Your task to perform on an android device: Search for bose quietcomfort 35 on costco, select the first entry, add it to the cart, then select checkout. Image 0: 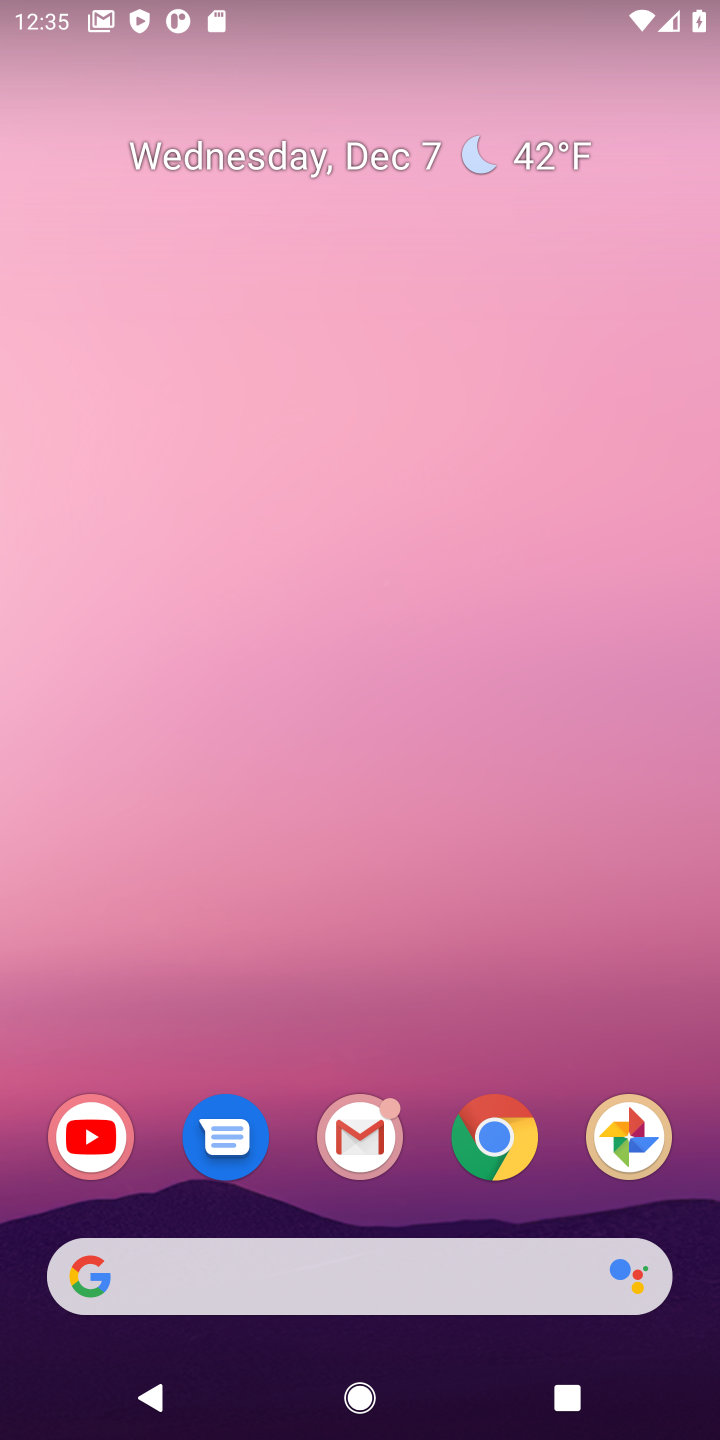
Step 0: drag from (367, 1282) to (427, 590)
Your task to perform on an android device: Search for bose quietcomfort 35 on costco, select the first entry, add it to the cart, then select checkout. Image 1: 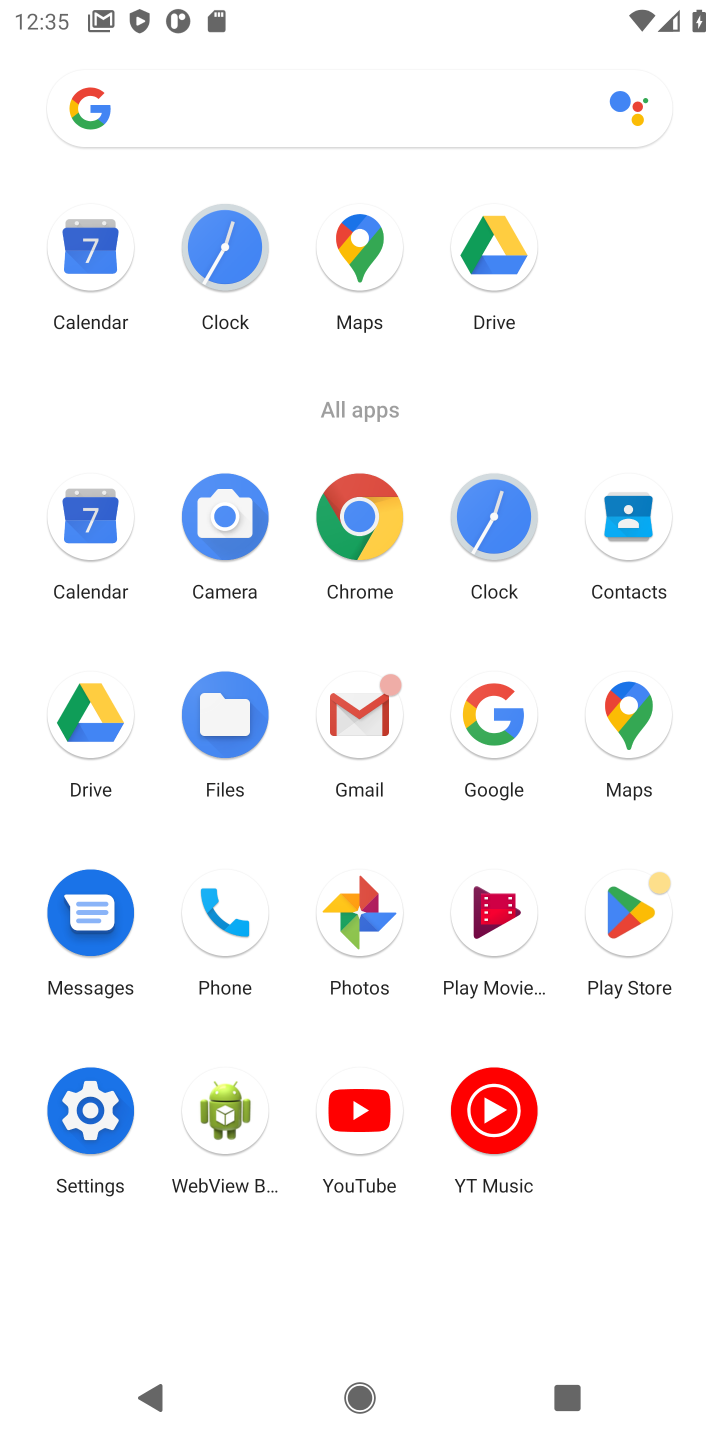
Step 1: click (476, 709)
Your task to perform on an android device: Search for bose quietcomfort 35 on costco, select the first entry, add it to the cart, then select checkout. Image 2: 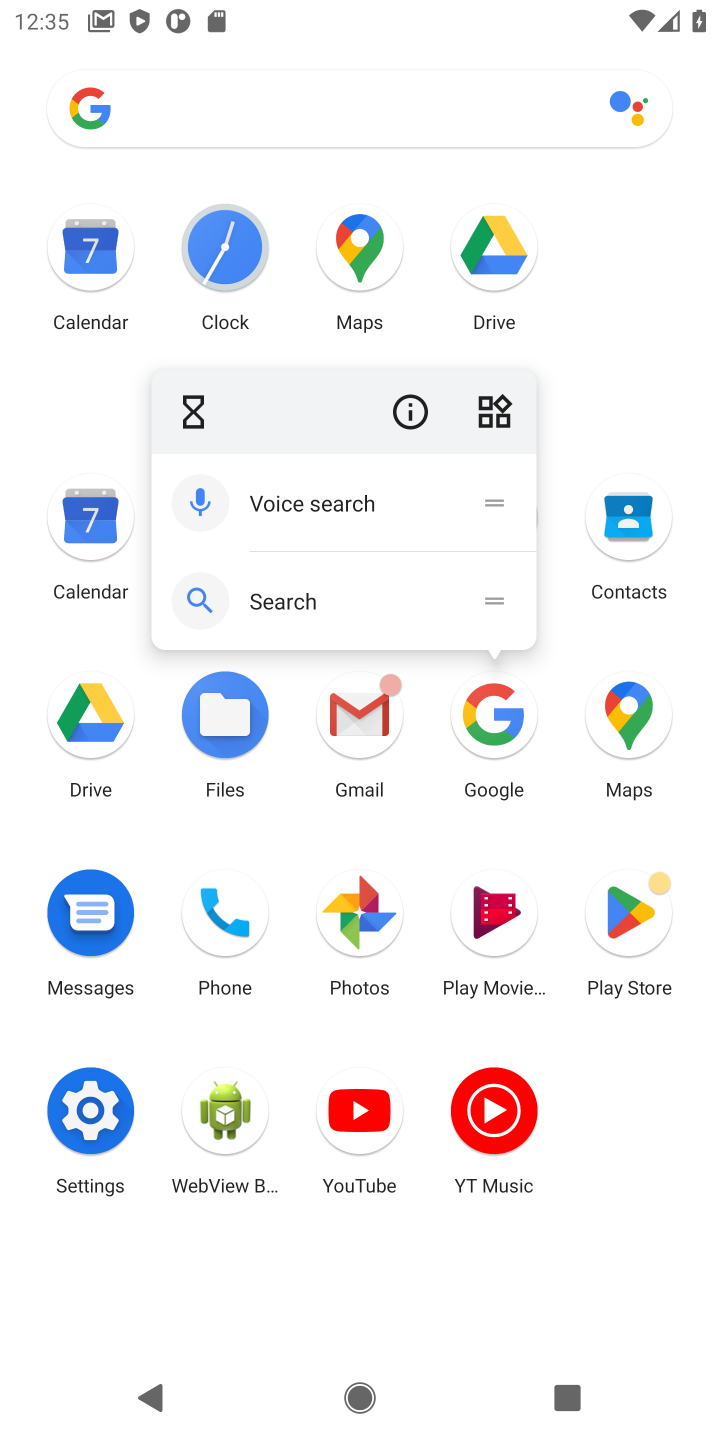
Step 2: click (503, 738)
Your task to perform on an android device: Search for bose quietcomfort 35 on costco, select the first entry, add it to the cart, then select checkout. Image 3: 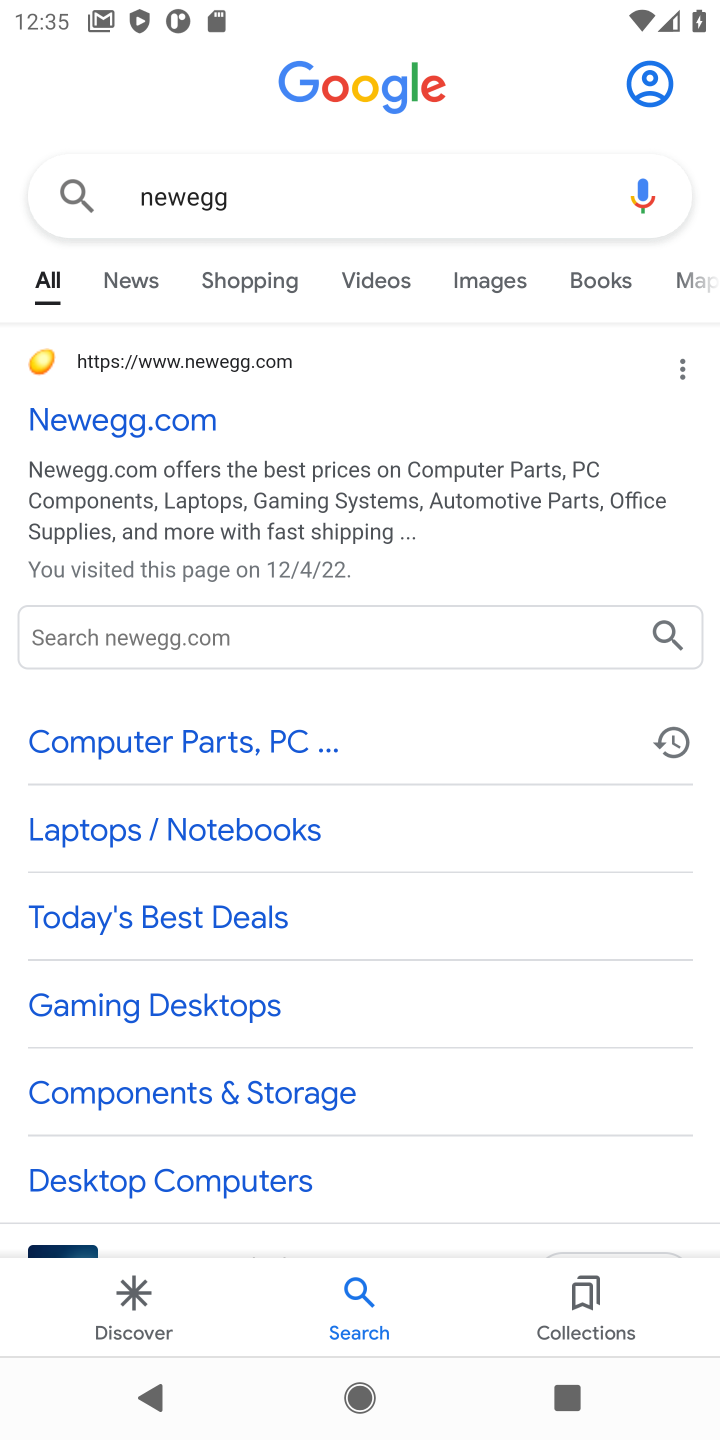
Step 3: click (189, 189)
Your task to perform on an android device: Search for bose quietcomfort 35 on costco, select the first entry, add it to the cart, then select checkout. Image 4: 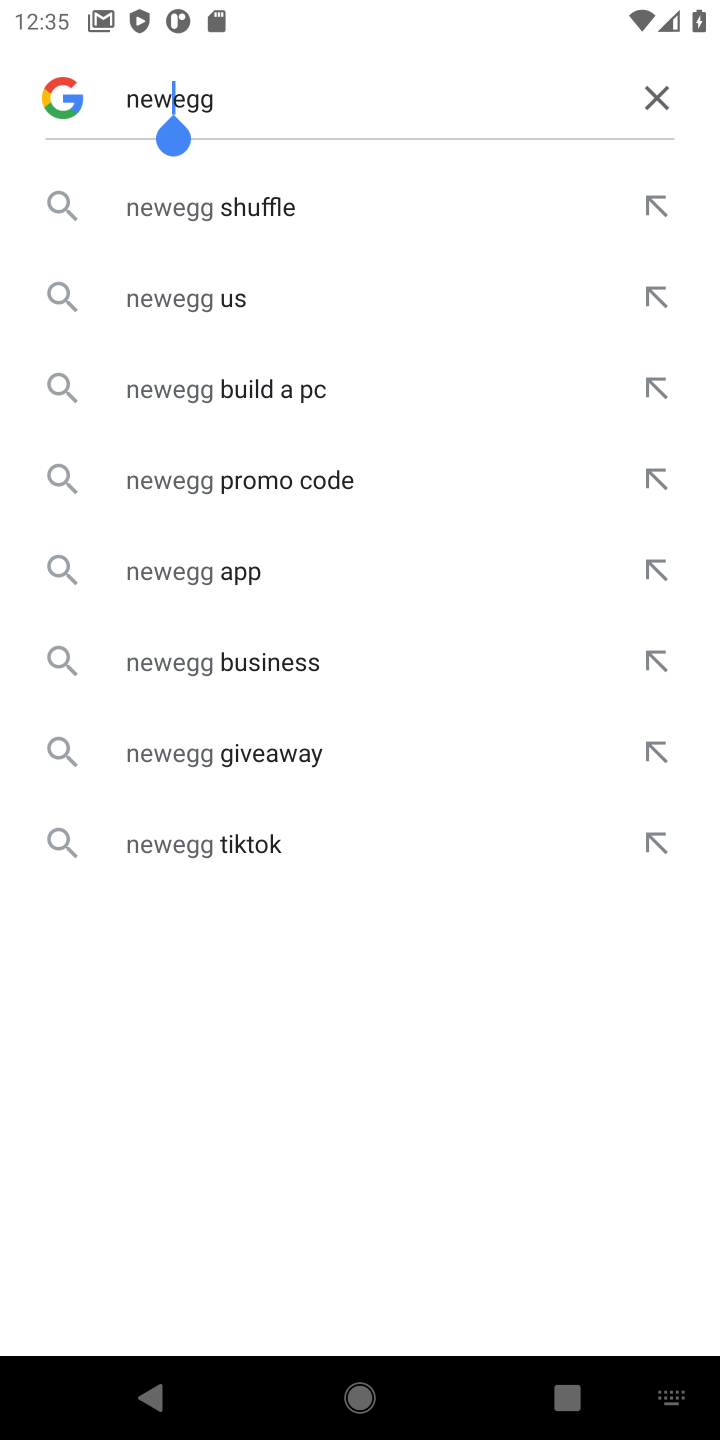
Step 4: click (662, 91)
Your task to perform on an android device: Search for bose quietcomfort 35 on costco, select the first entry, add it to the cart, then select checkout. Image 5: 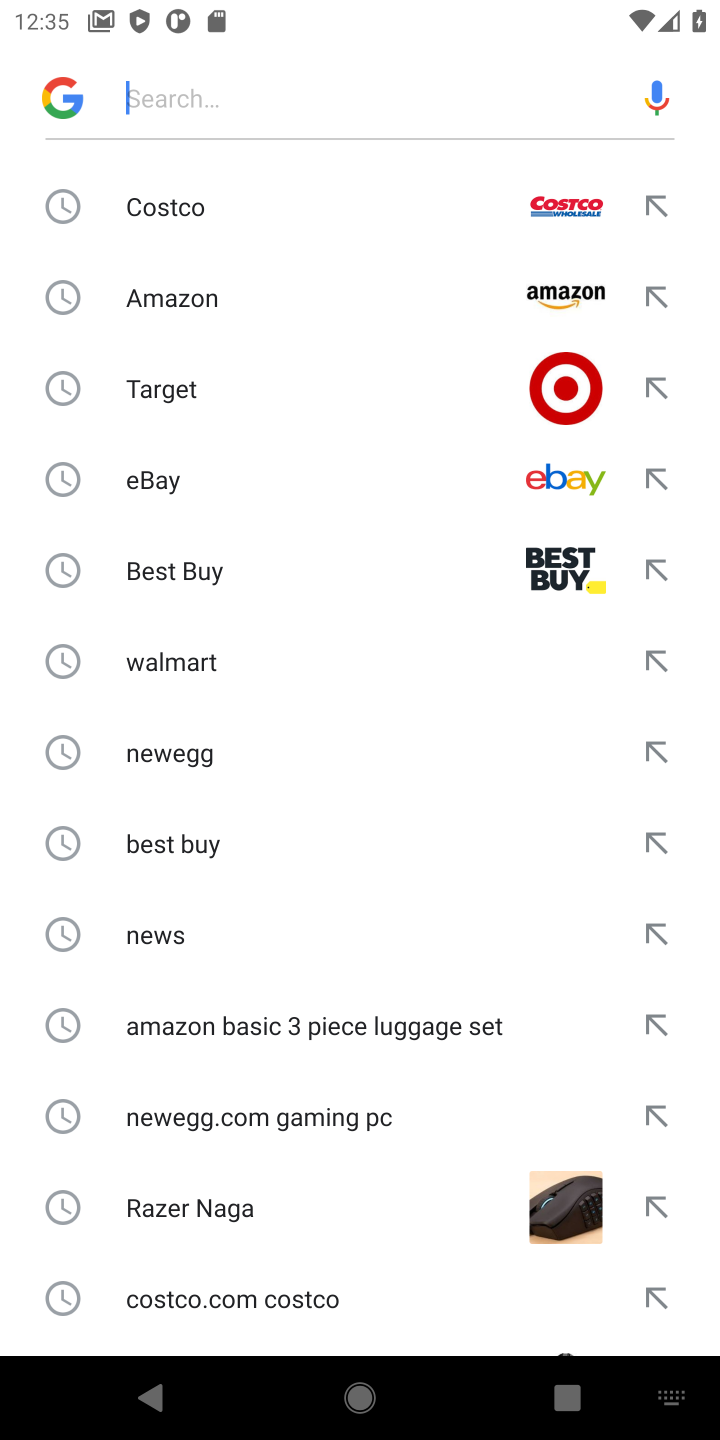
Step 5: click (192, 205)
Your task to perform on an android device: Search for bose quietcomfort 35 on costco, select the first entry, add it to the cart, then select checkout. Image 6: 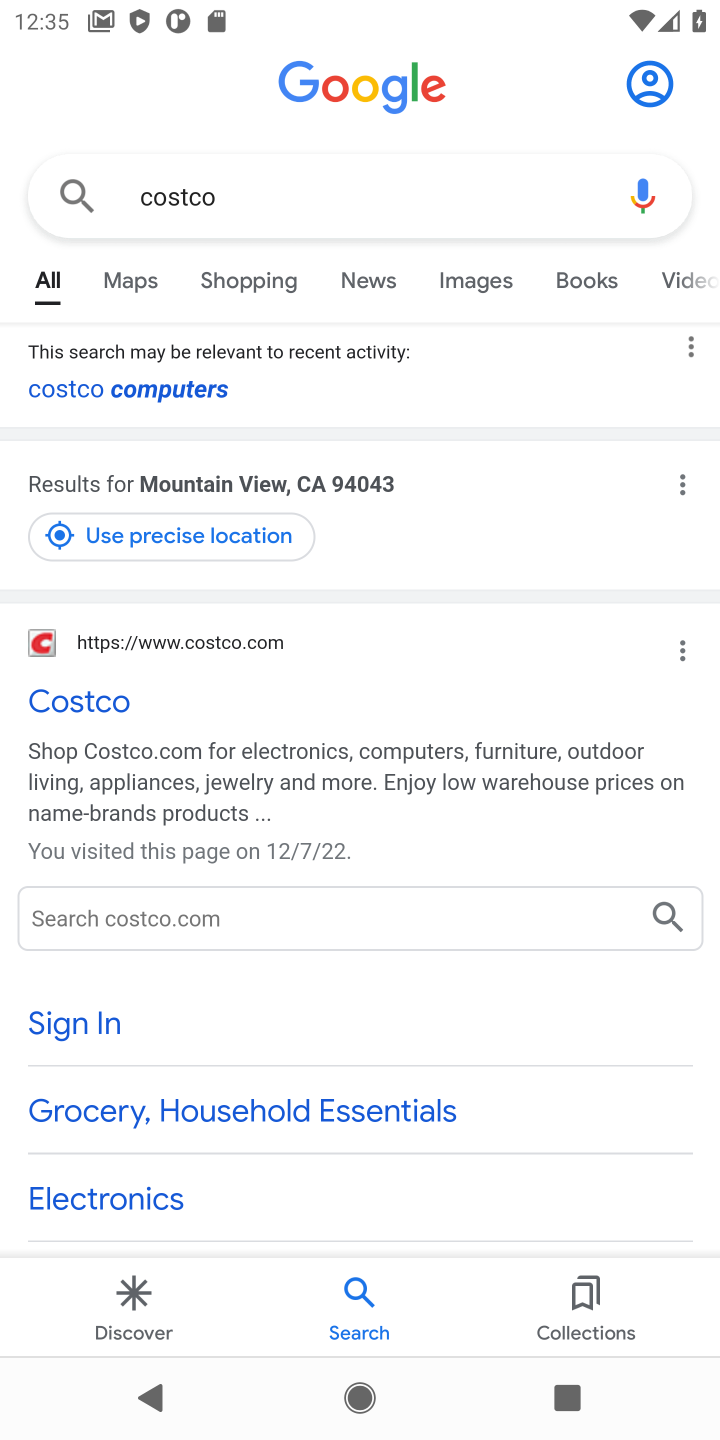
Step 6: click (93, 707)
Your task to perform on an android device: Search for bose quietcomfort 35 on costco, select the first entry, add it to the cart, then select checkout. Image 7: 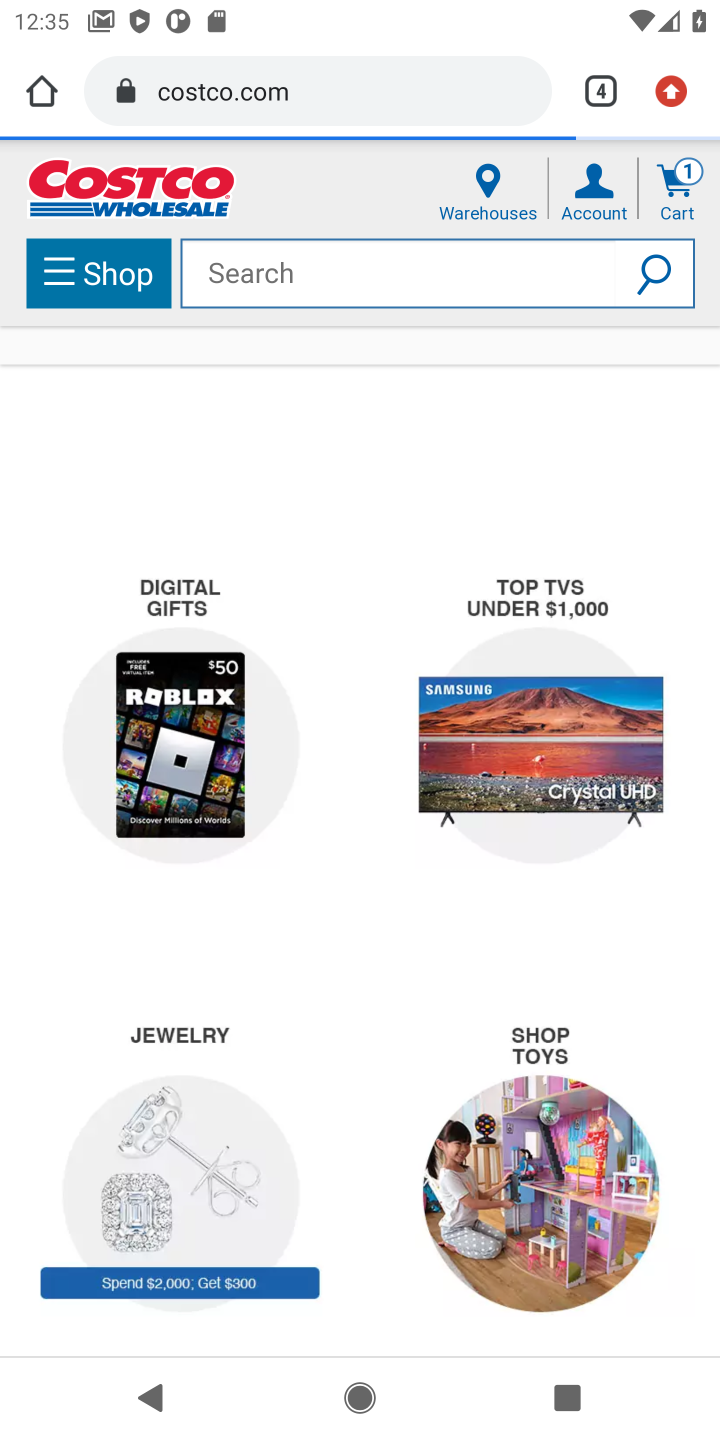
Step 7: click (271, 274)
Your task to perform on an android device: Search for bose quietcomfort 35 on costco, select the first entry, add it to the cart, then select checkout. Image 8: 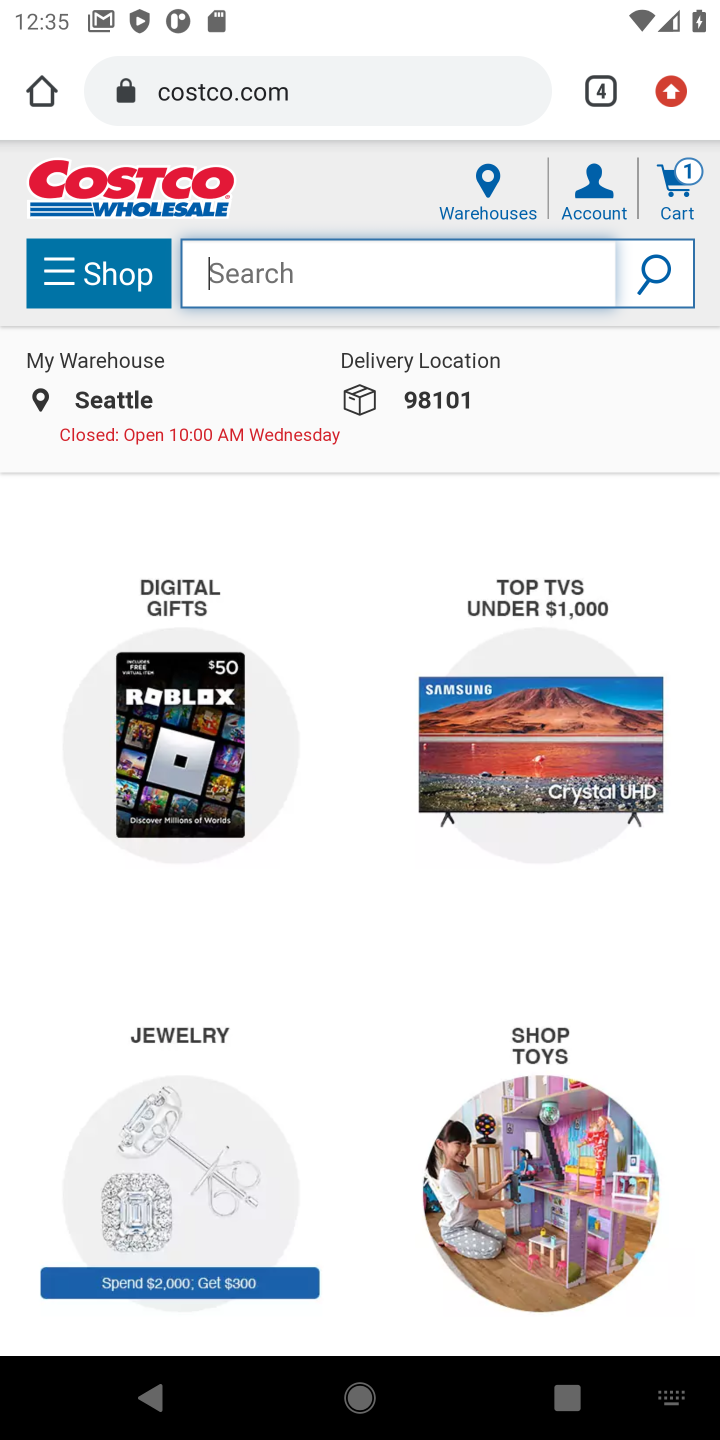
Step 8: click (252, 272)
Your task to perform on an android device: Search for bose quietcomfort 35 on costco, select the first entry, add it to the cart, then select checkout. Image 9: 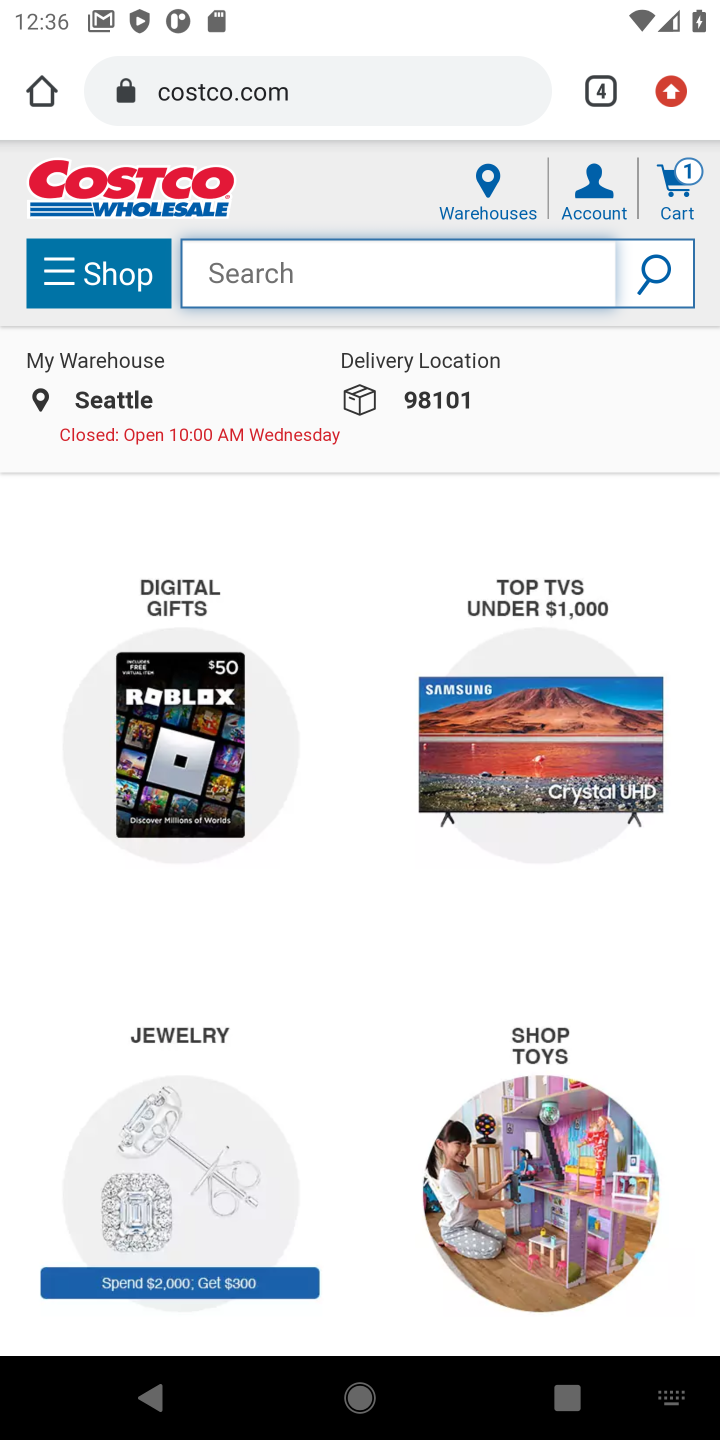
Step 9: type "quietcomfort 35"
Your task to perform on an android device: Search for bose quietcomfort 35 on costco, select the first entry, add it to the cart, then select checkout. Image 10: 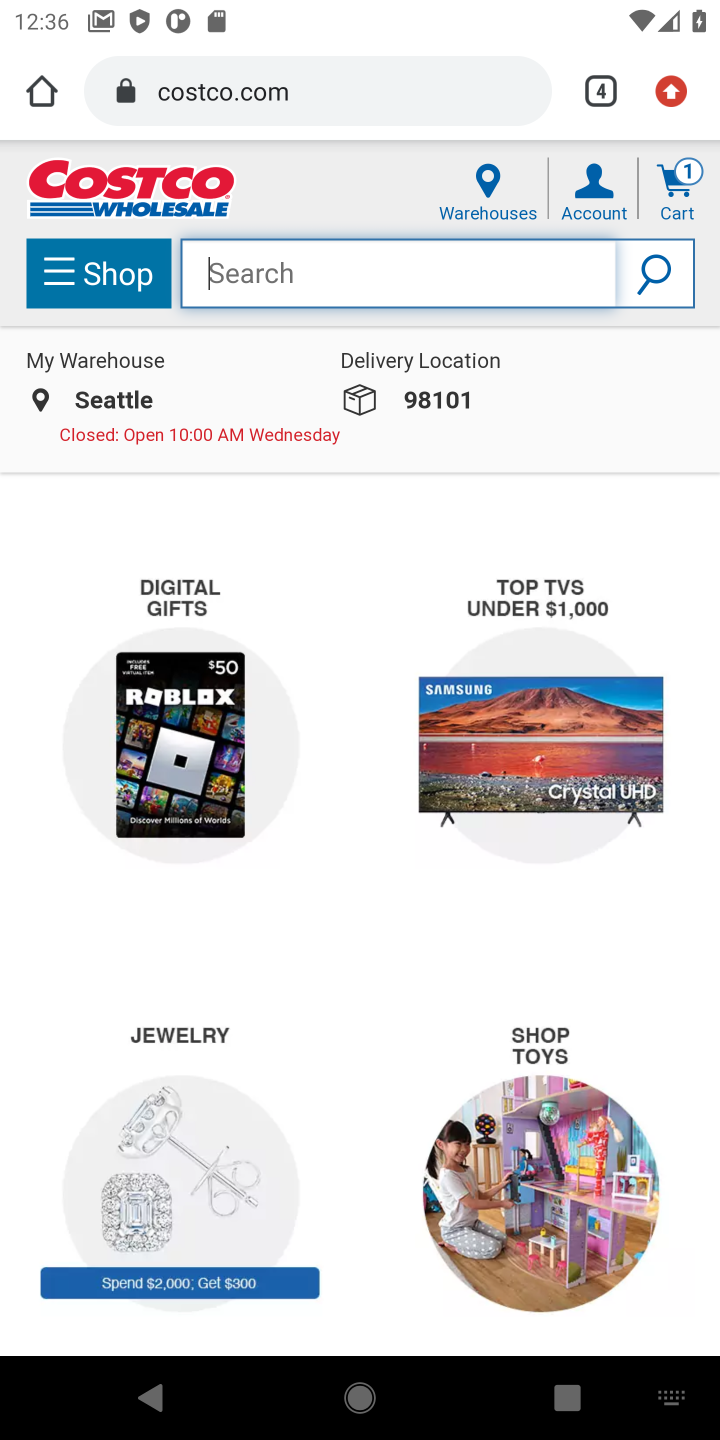
Step 10: click (660, 277)
Your task to perform on an android device: Search for bose quietcomfort 35 on costco, select the first entry, add it to the cart, then select checkout. Image 11: 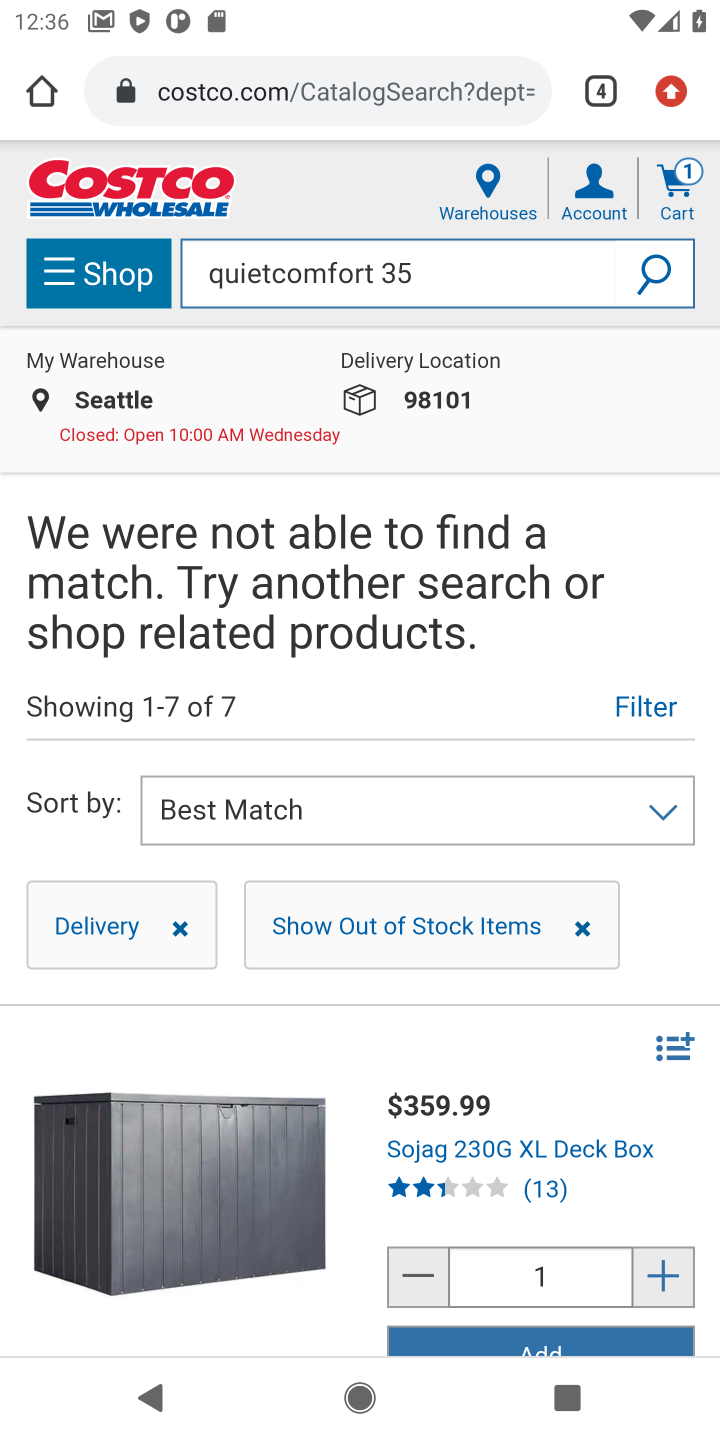
Step 11: drag from (323, 1115) to (348, 415)
Your task to perform on an android device: Search for bose quietcomfort 35 on costco, select the first entry, add it to the cart, then select checkout. Image 12: 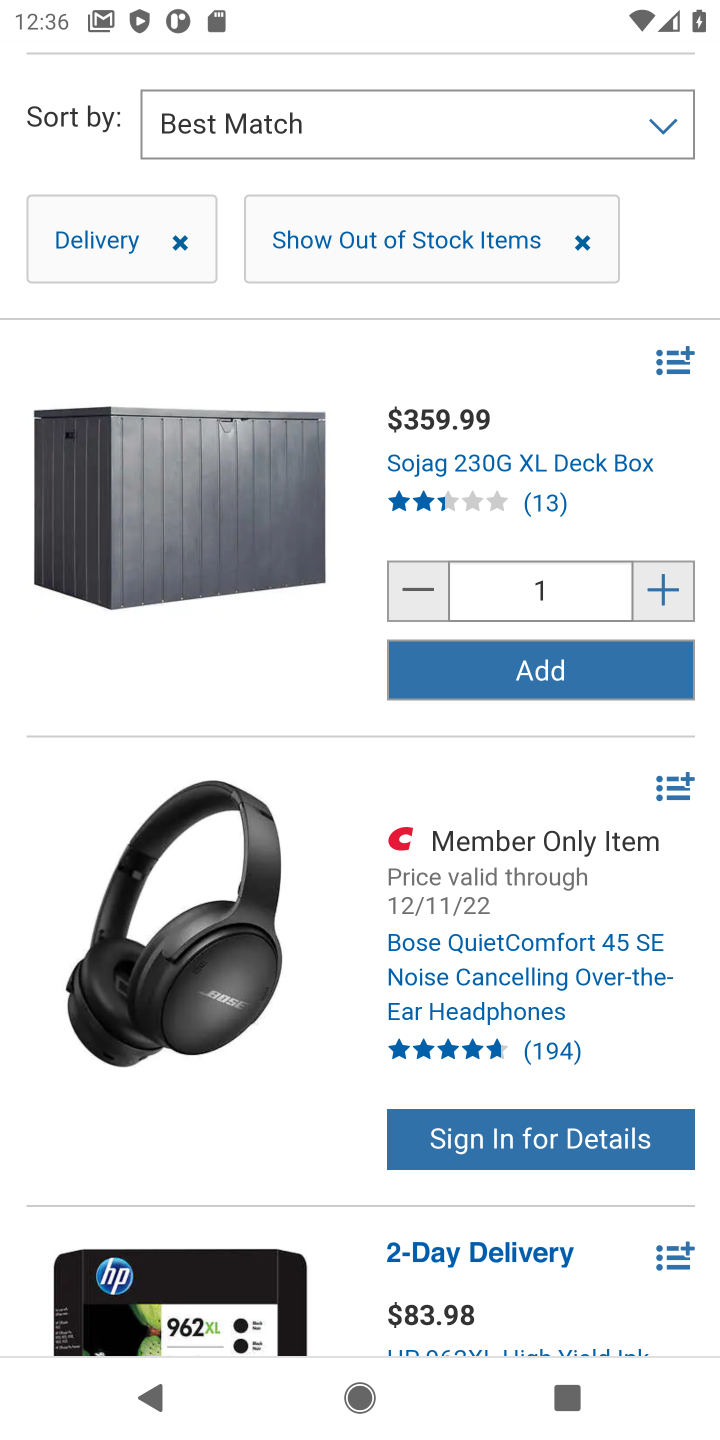
Step 12: click (523, 665)
Your task to perform on an android device: Search for bose quietcomfort 35 on costco, select the first entry, add it to the cart, then select checkout. Image 13: 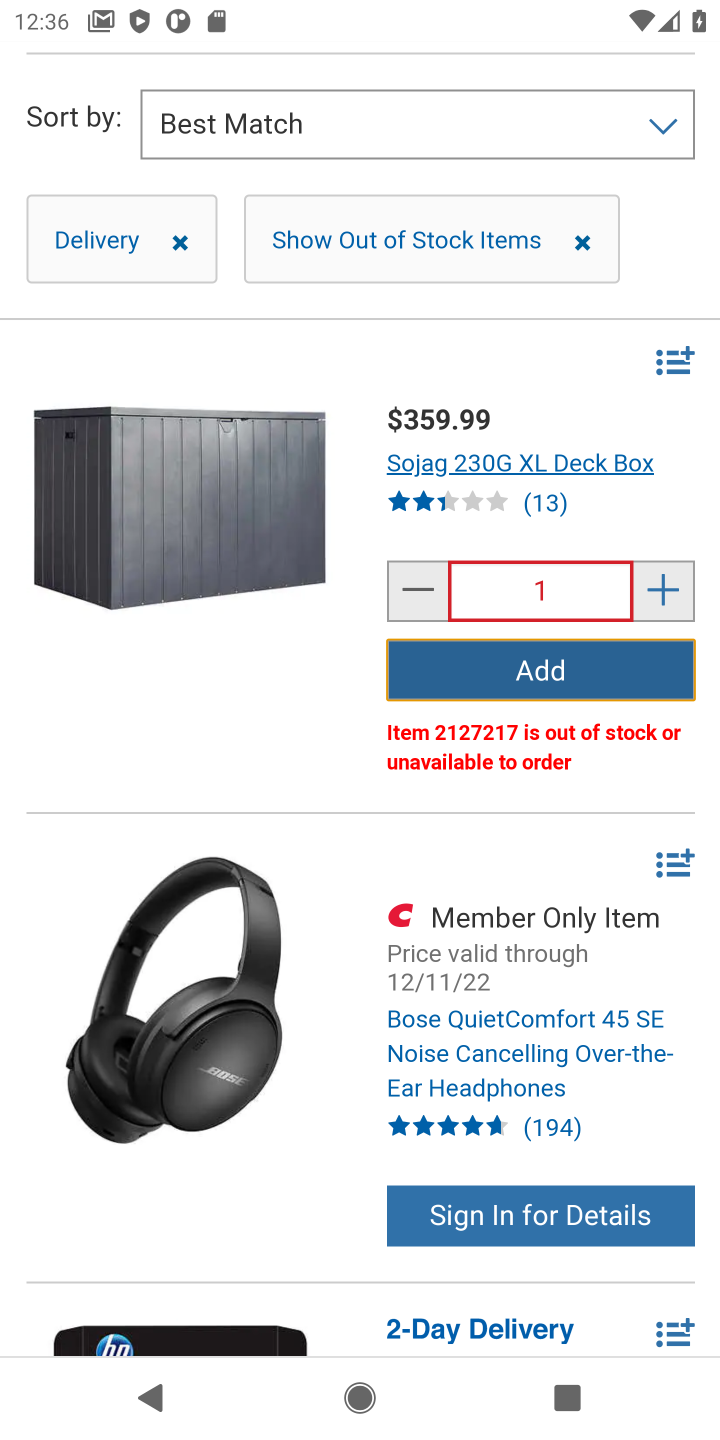
Step 13: drag from (378, 355) to (471, 864)
Your task to perform on an android device: Search for bose quietcomfort 35 on costco, select the first entry, add it to the cart, then select checkout. Image 14: 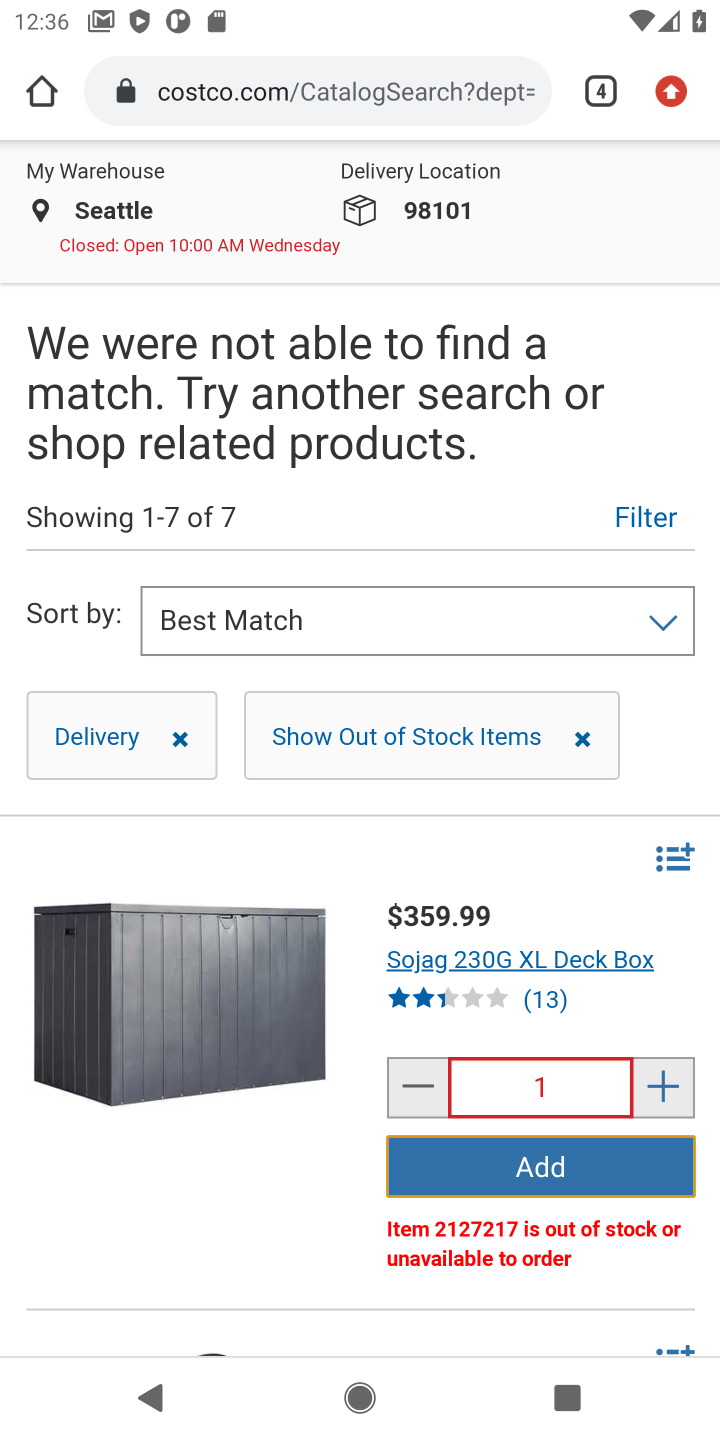
Step 14: drag from (490, 270) to (527, 812)
Your task to perform on an android device: Search for bose quietcomfort 35 on costco, select the first entry, add it to the cart, then select checkout. Image 15: 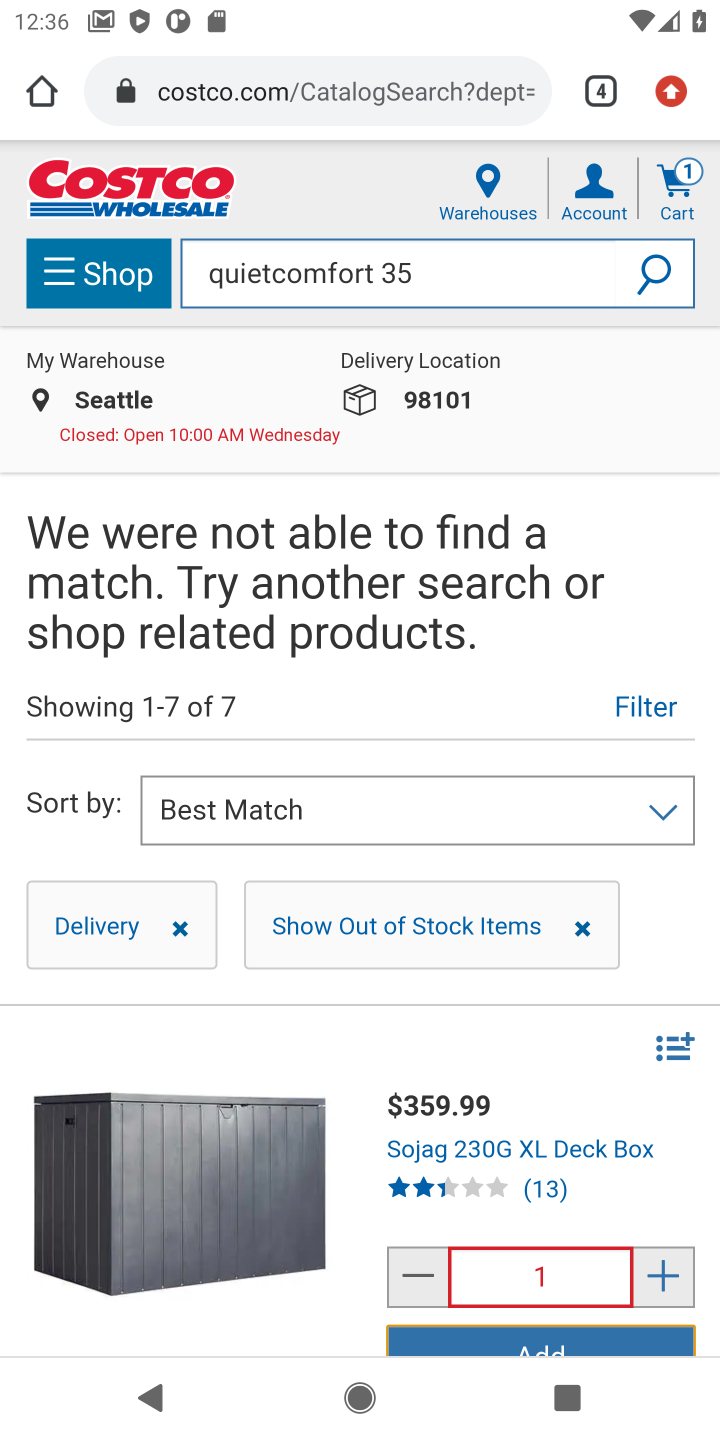
Step 15: click (663, 178)
Your task to perform on an android device: Search for bose quietcomfort 35 on costco, select the first entry, add it to the cart, then select checkout. Image 16: 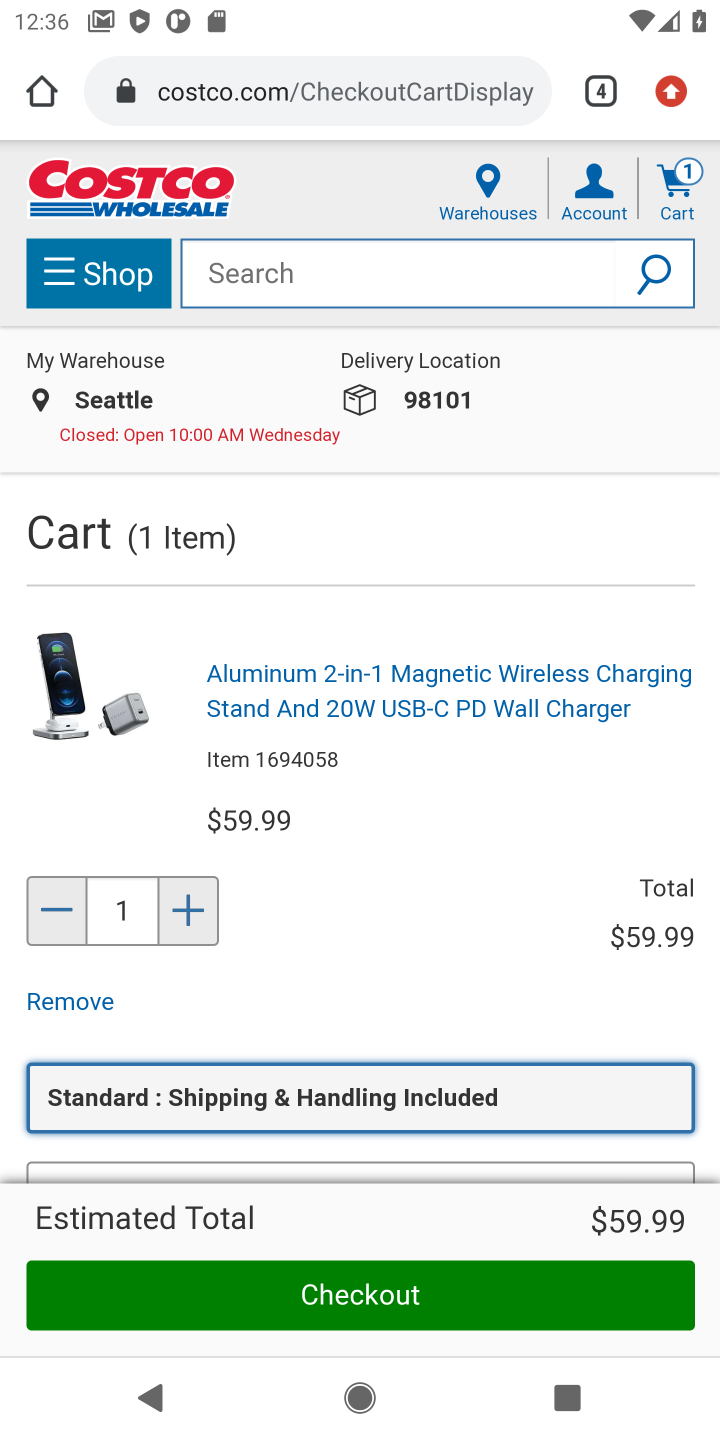
Step 16: click (352, 1285)
Your task to perform on an android device: Search for bose quietcomfort 35 on costco, select the first entry, add it to the cart, then select checkout. Image 17: 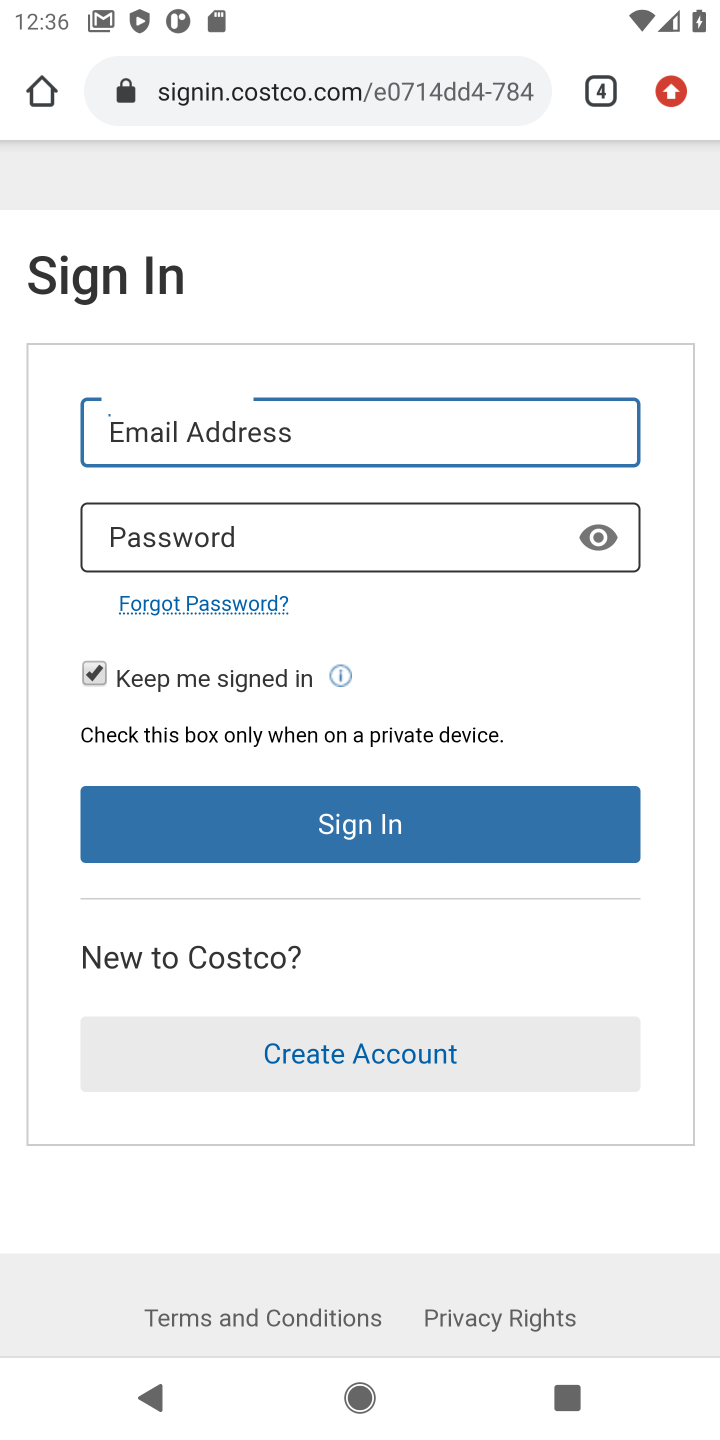
Step 17: task complete